Your task to perform on an android device: What is the recent news? Image 0: 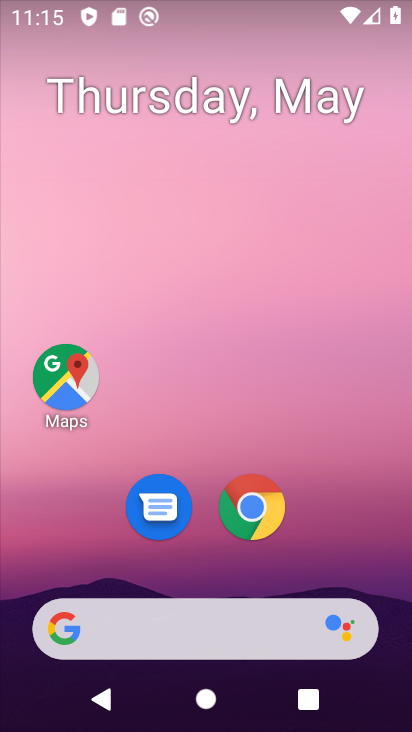
Step 0: drag from (18, 263) to (380, 271)
Your task to perform on an android device: What is the recent news? Image 1: 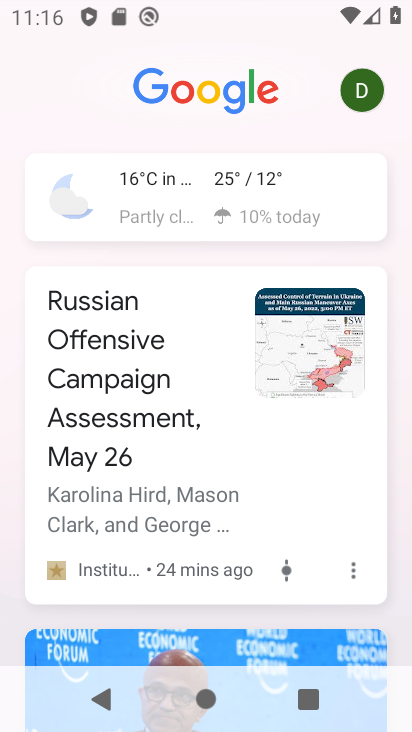
Step 1: task complete